Your task to perform on an android device: Search for Italian restaurants on Maps Image 0: 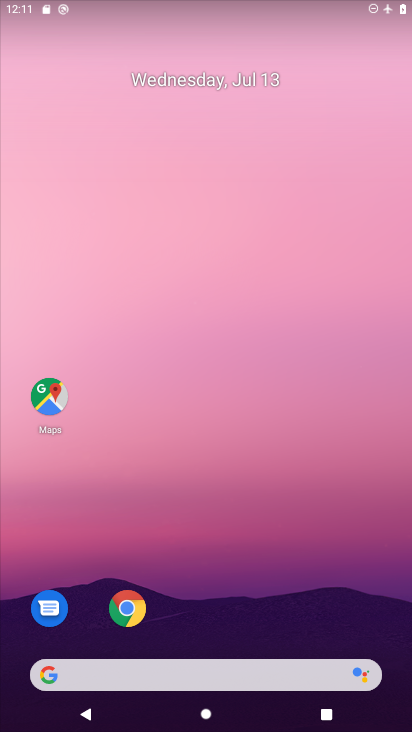
Step 0: click (49, 407)
Your task to perform on an android device: Search for Italian restaurants on Maps Image 1: 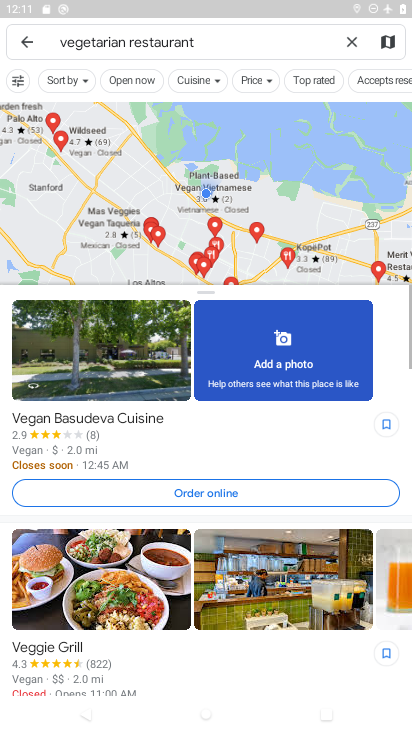
Step 1: click (356, 33)
Your task to perform on an android device: Search for Italian restaurants on Maps Image 2: 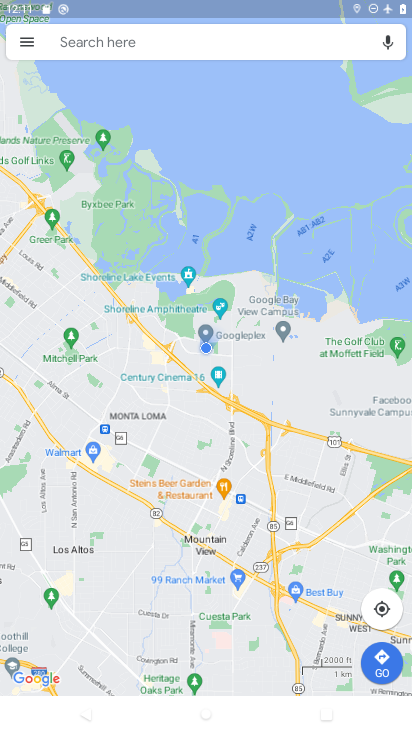
Step 2: click (271, 43)
Your task to perform on an android device: Search for Italian restaurants on Maps Image 3: 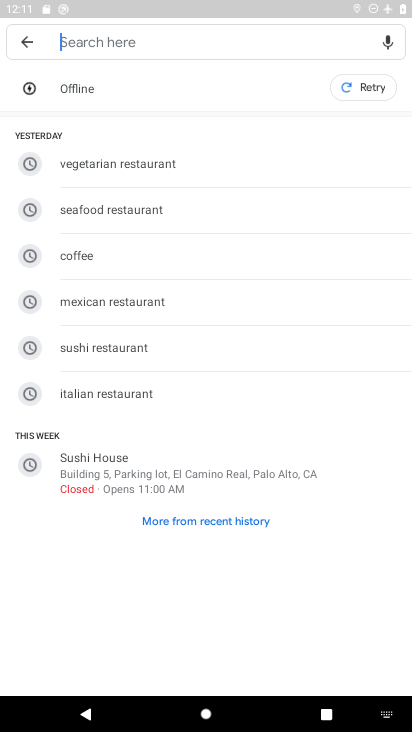
Step 3: click (120, 391)
Your task to perform on an android device: Search for Italian restaurants on Maps Image 4: 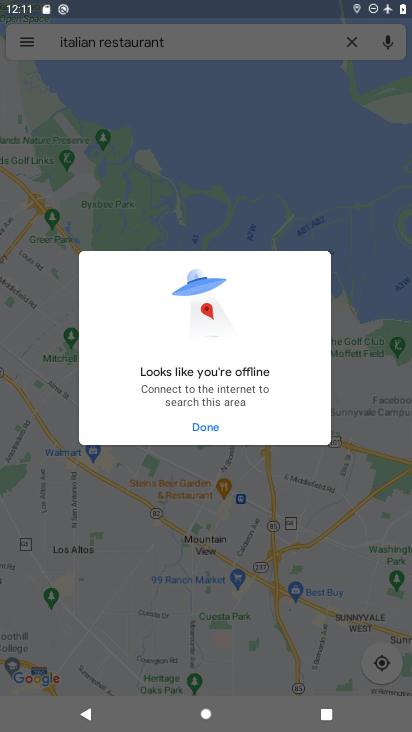
Step 4: drag from (239, 11) to (102, 682)
Your task to perform on an android device: Search for Italian restaurants on Maps Image 5: 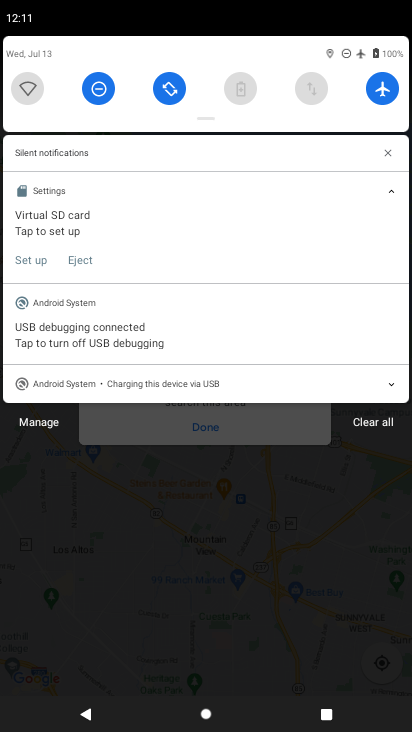
Step 5: click (359, 137)
Your task to perform on an android device: Search for Italian restaurants on Maps Image 6: 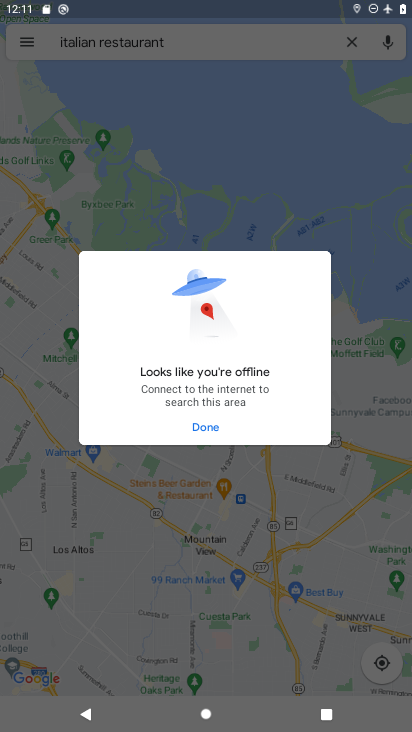
Step 6: click (381, 97)
Your task to perform on an android device: Search for Italian restaurants on Maps Image 7: 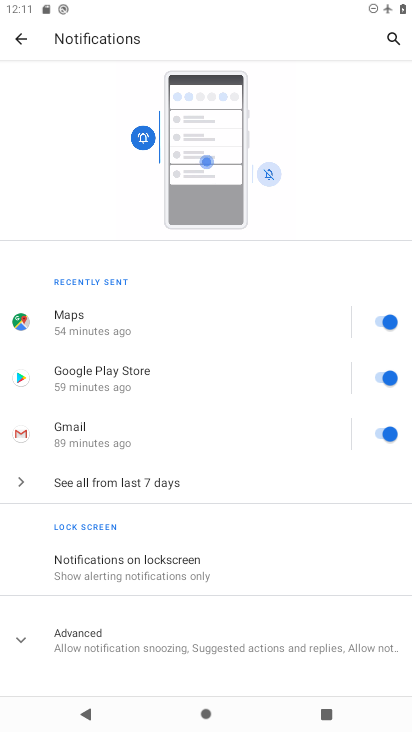
Step 7: drag from (280, 10) to (267, 605)
Your task to perform on an android device: Search for Italian restaurants on Maps Image 8: 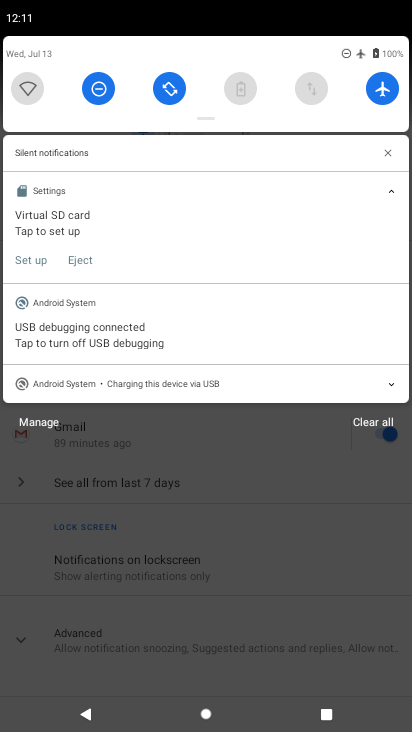
Step 8: click (388, 93)
Your task to perform on an android device: Search for Italian restaurants on Maps Image 9: 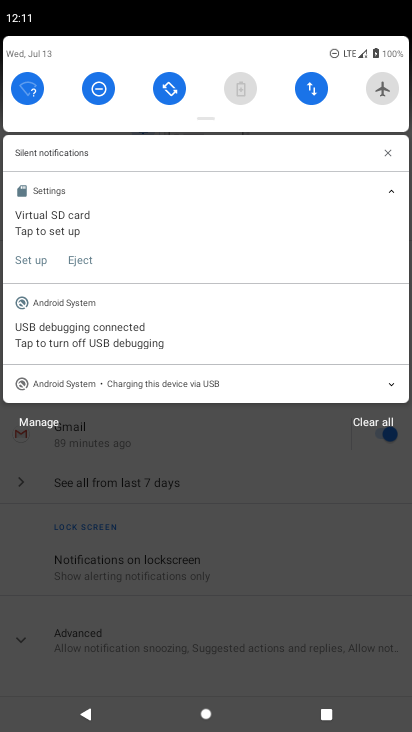
Step 9: task complete